Your task to perform on an android device: Open Google Image 0: 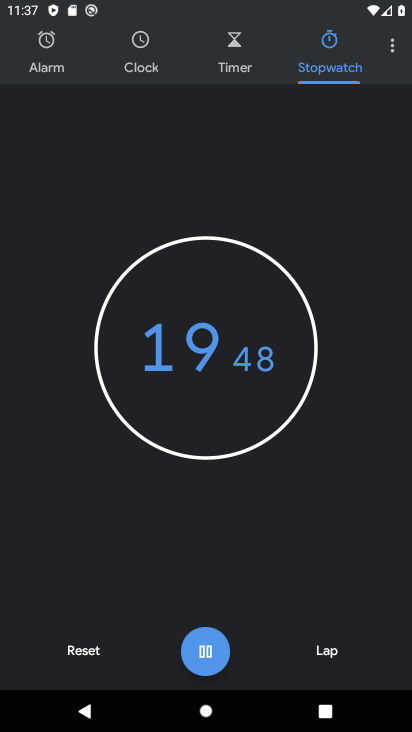
Step 0: press home button
Your task to perform on an android device: Open Google Image 1: 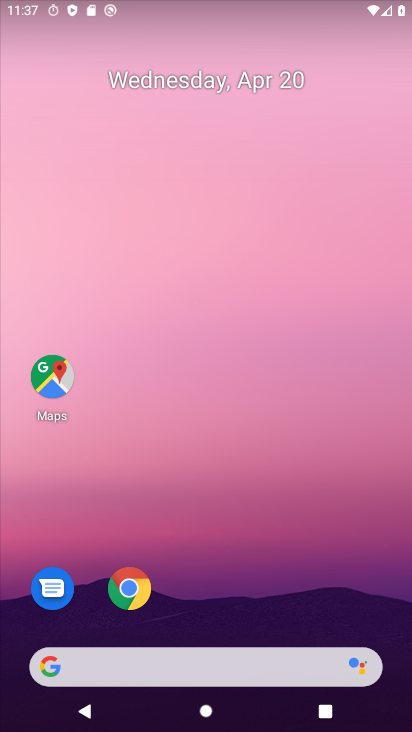
Step 1: drag from (214, 597) to (244, 67)
Your task to perform on an android device: Open Google Image 2: 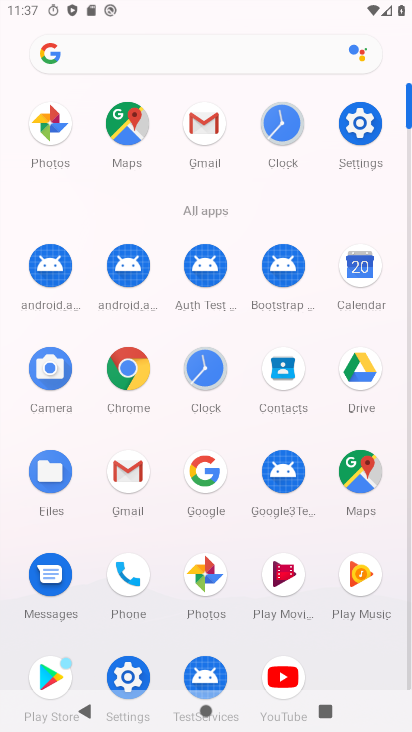
Step 2: click (201, 464)
Your task to perform on an android device: Open Google Image 3: 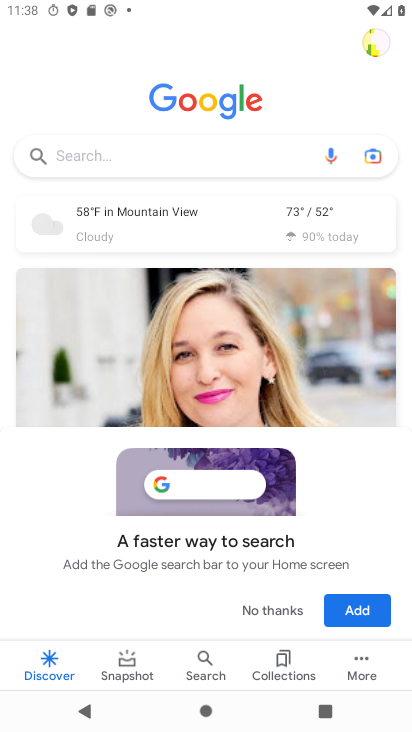
Step 3: click (277, 611)
Your task to perform on an android device: Open Google Image 4: 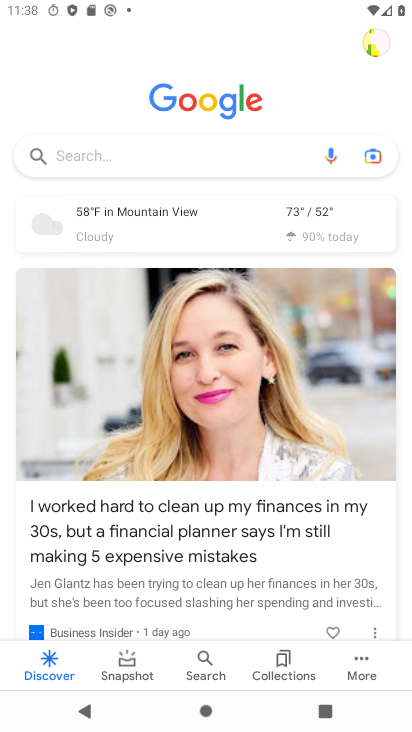
Step 4: task complete